Your task to perform on an android device: search for starred emails in the gmail app Image 0: 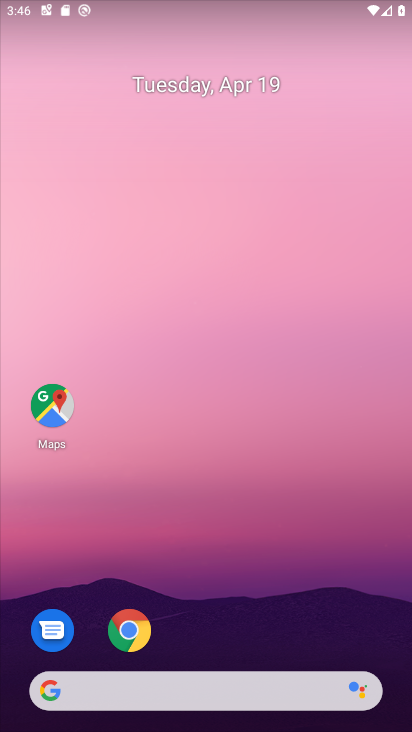
Step 0: drag from (304, 507) to (335, 353)
Your task to perform on an android device: search for starred emails in the gmail app Image 1: 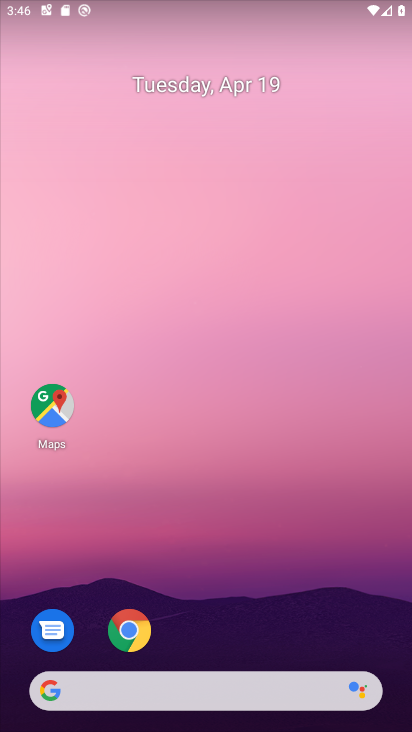
Step 1: drag from (266, 540) to (285, 181)
Your task to perform on an android device: search for starred emails in the gmail app Image 2: 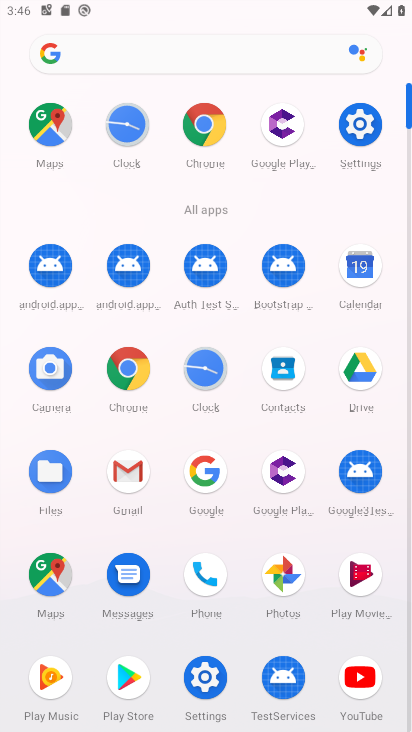
Step 2: click (132, 478)
Your task to perform on an android device: search for starred emails in the gmail app Image 3: 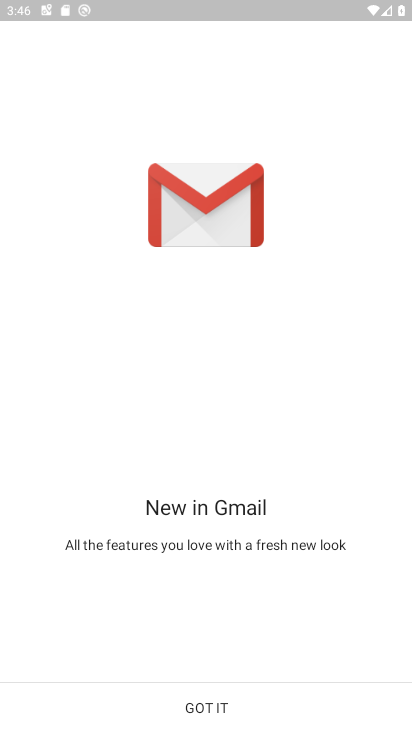
Step 3: click (197, 705)
Your task to perform on an android device: search for starred emails in the gmail app Image 4: 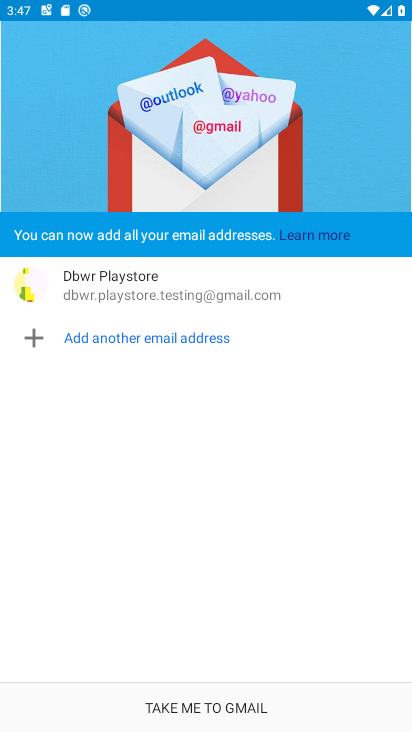
Step 4: click (183, 710)
Your task to perform on an android device: search for starred emails in the gmail app Image 5: 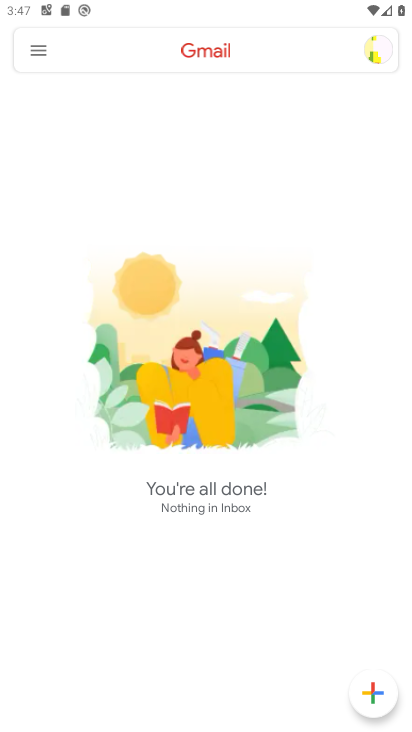
Step 5: click (41, 55)
Your task to perform on an android device: search for starred emails in the gmail app Image 6: 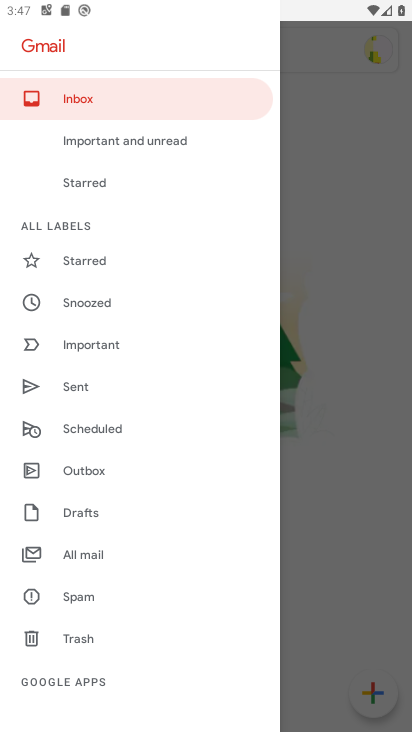
Step 6: click (113, 260)
Your task to perform on an android device: search for starred emails in the gmail app Image 7: 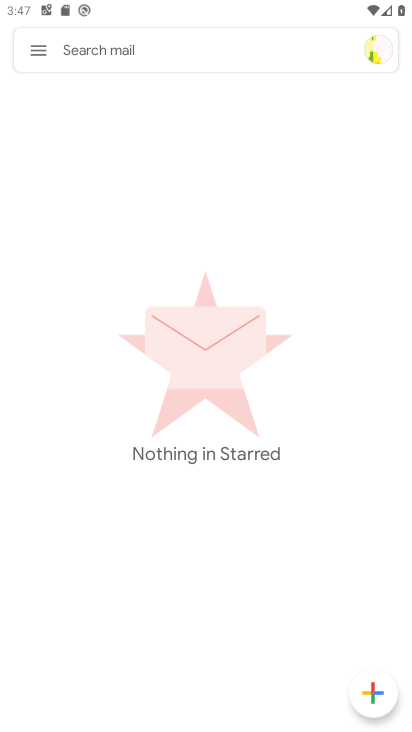
Step 7: task complete